Your task to perform on an android device: Show me popular videos on Youtube Image 0: 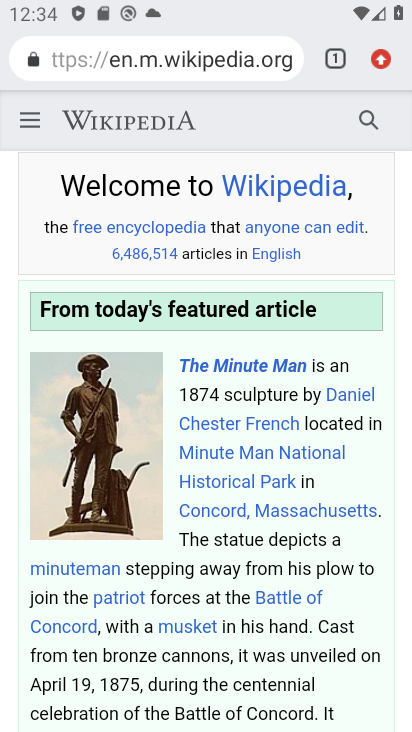
Step 0: press home button
Your task to perform on an android device: Show me popular videos on Youtube Image 1: 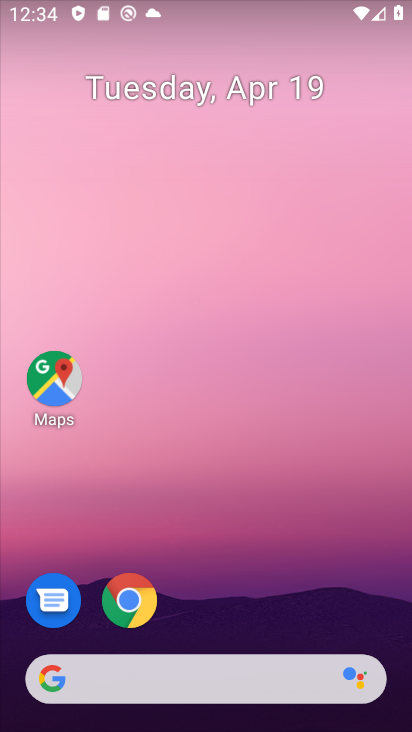
Step 1: drag from (231, 645) to (244, 48)
Your task to perform on an android device: Show me popular videos on Youtube Image 2: 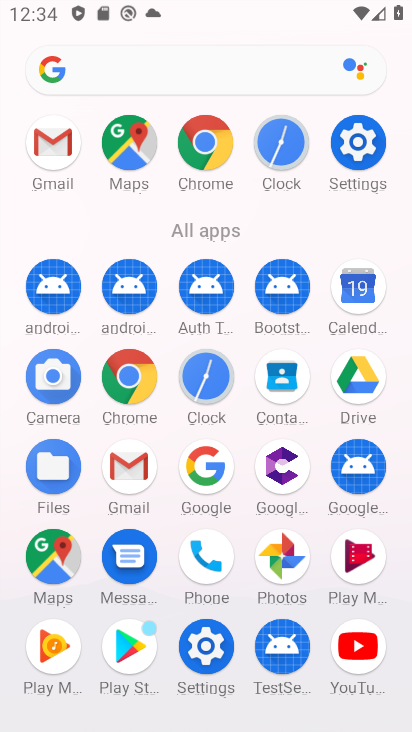
Step 2: click (368, 635)
Your task to perform on an android device: Show me popular videos on Youtube Image 3: 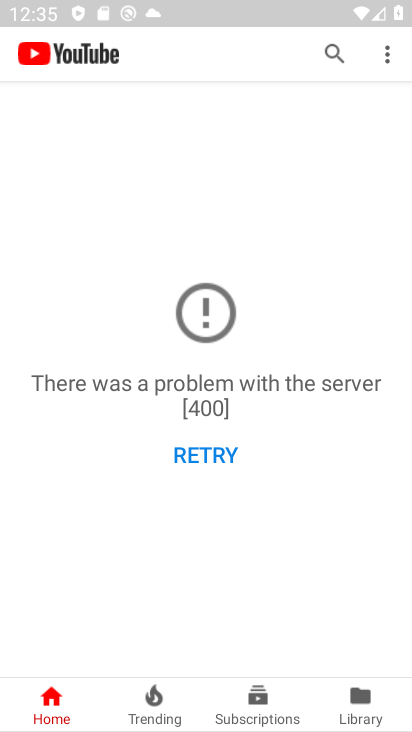
Step 3: task complete